Your task to perform on an android device: Do I have any events tomorrow? Image 0: 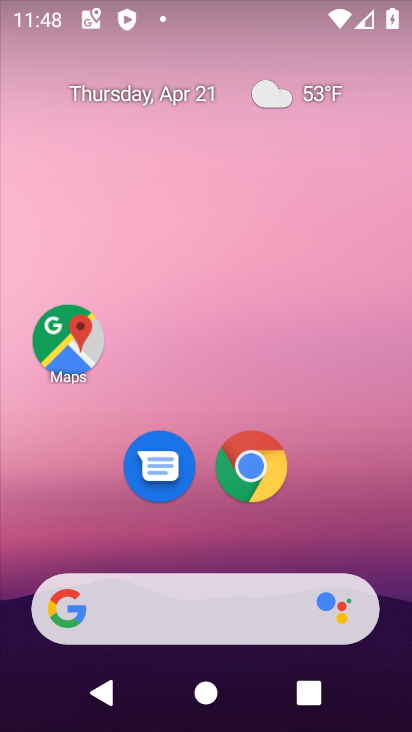
Step 0: drag from (385, 589) to (300, 26)
Your task to perform on an android device: Do I have any events tomorrow? Image 1: 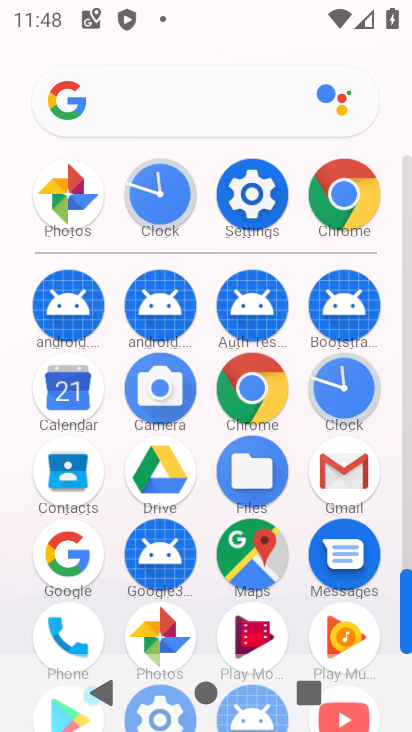
Step 1: drag from (12, 621) to (8, 352)
Your task to perform on an android device: Do I have any events tomorrow? Image 2: 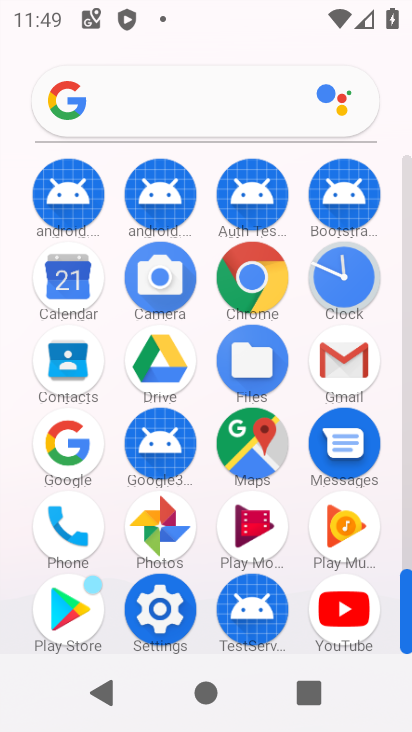
Step 2: click (62, 268)
Your task to perform on an android device: Do I have any events tomorrow? Image 3: 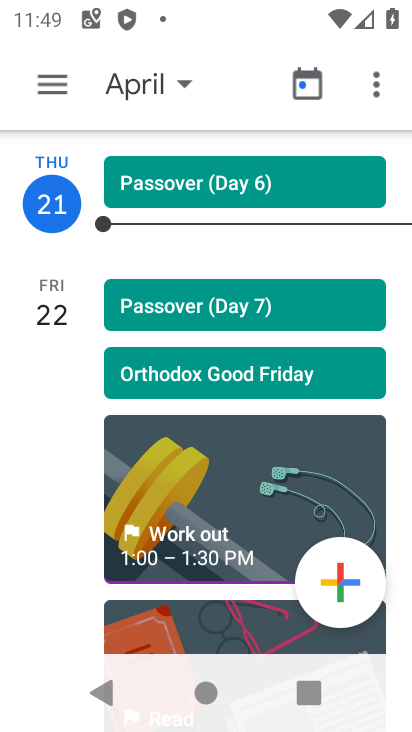
Step 3: task complete